Your task to perform on an android device: Open Wikipedia Image 0: 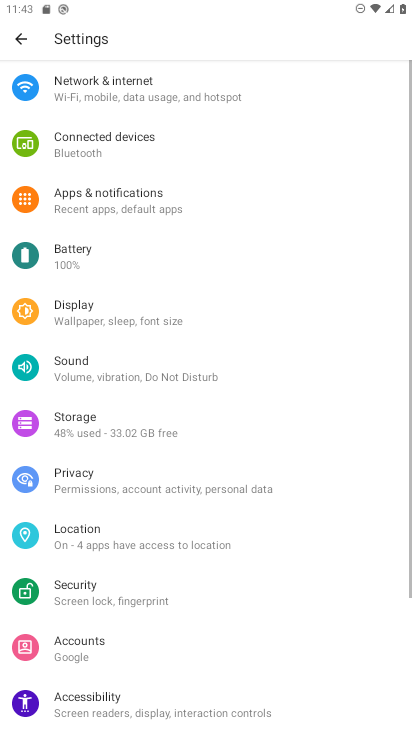
Step 0: press home button
Your task to perform on an android device: Open Wikipedia Image 1: 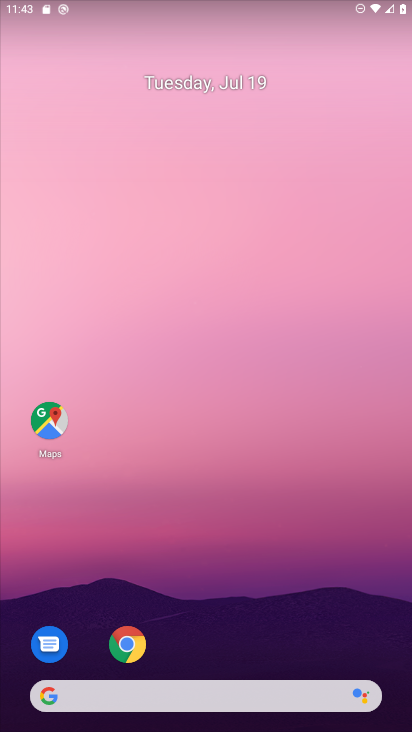
Step 1: click (100, 691)
Your task to perform on an android device: Open Wikipedia Image 2: 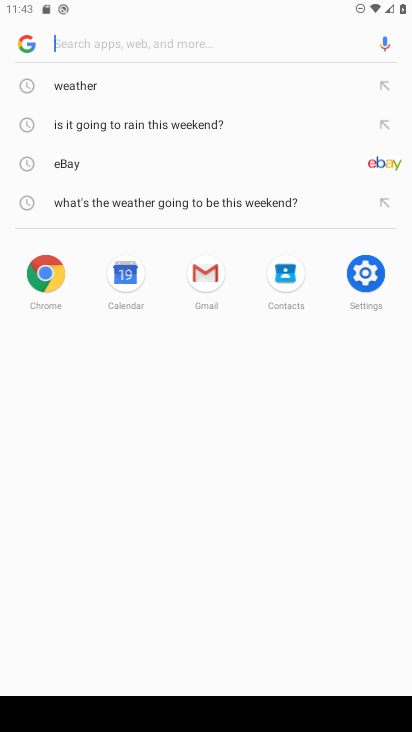
Step 2: type "Wikipedia"
Your task to perform on an android device: Open Wikipedia Image 3: 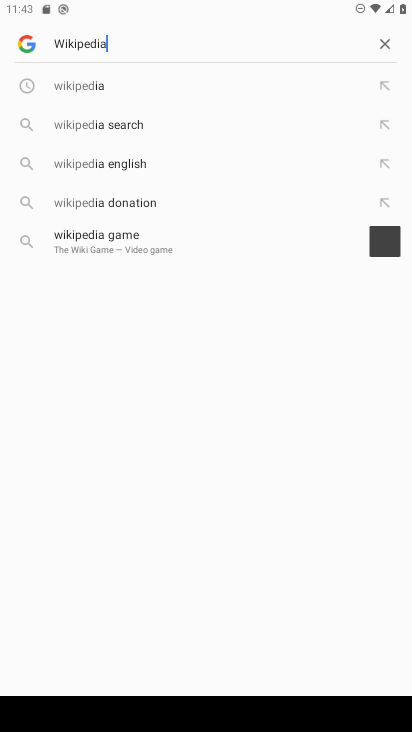
Step 3: type ""
Your task to perform on an android device: Open Wikipedia Image 4: 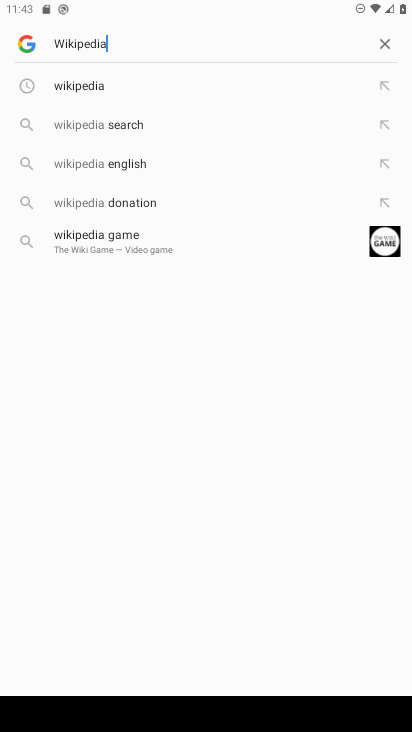
Step 4: type ""
Your task to perform on an android device: Open Wikipedia Image 5: 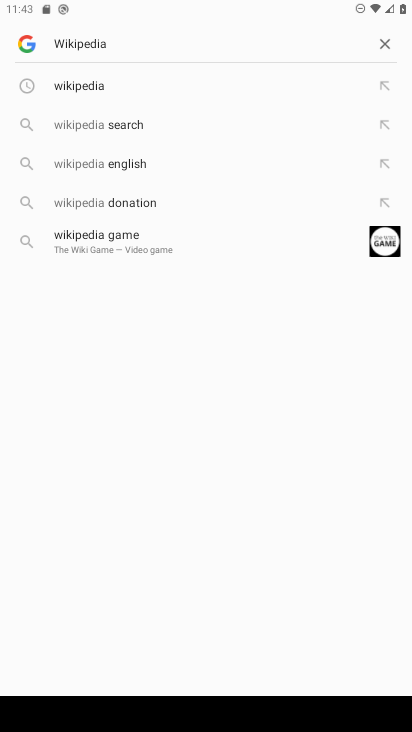
Step 5: type ""
Your task to perform on an android device: Open Wikipedia Image 6: 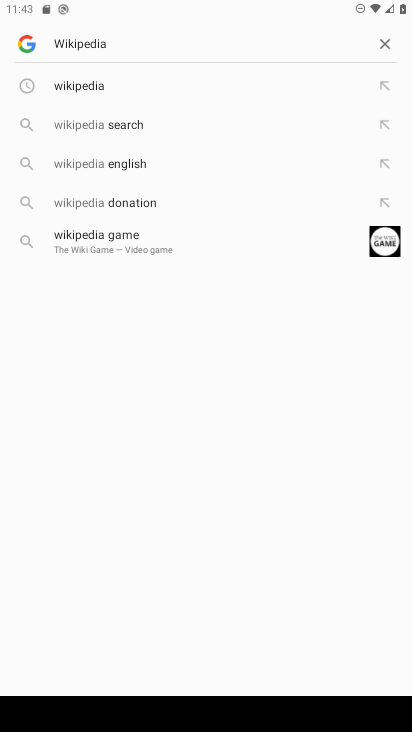
Step 6: click (114, 88)
Your task to perform on an android device: Open Wikipedia Image 7: 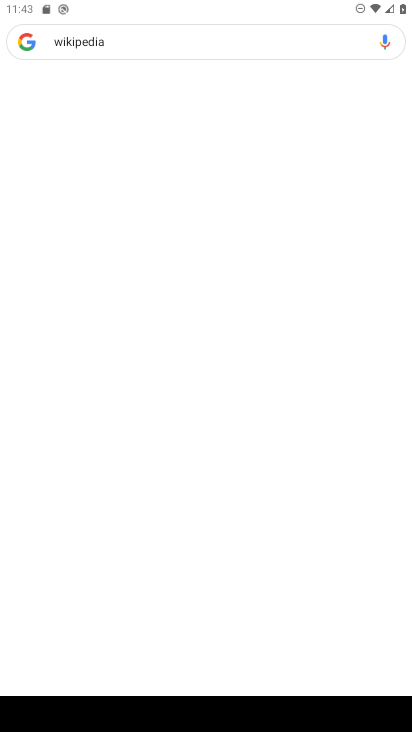
Step 7: click (86, 77)
Your task to perform on an android device: Open Wikipedia Image 8: 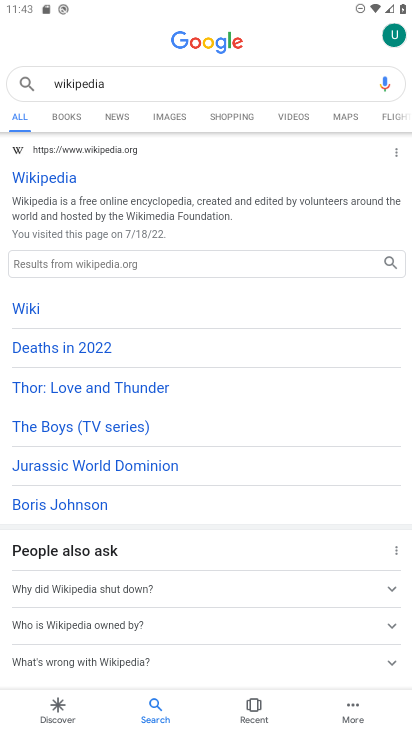
Step 8: task complete